Your task to perform on an android device: check google app version Image 0: 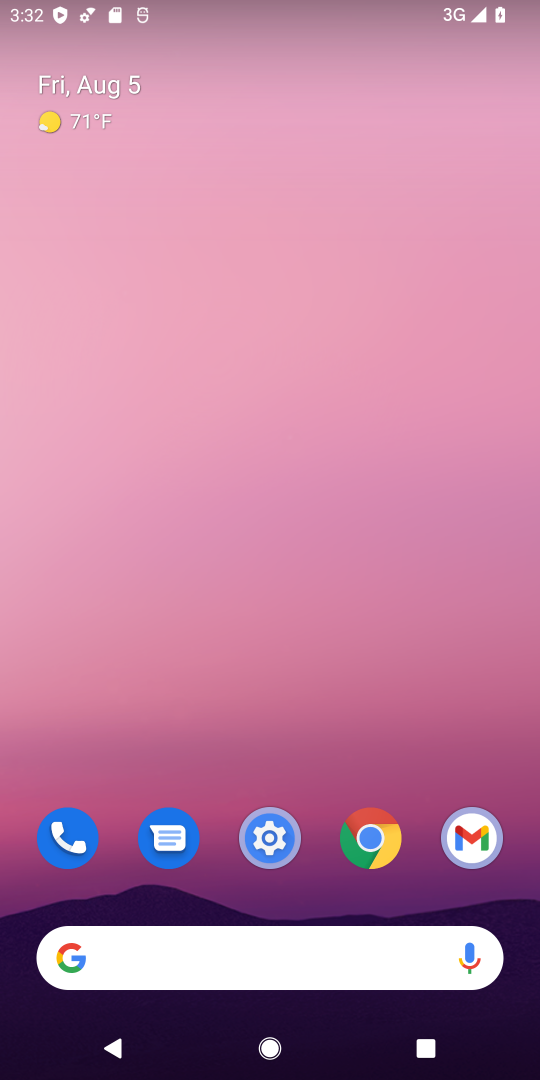
Step 0: drag from (213, 901) to (289, 459)
Your task to perform on an android device: check google app version Image 1: 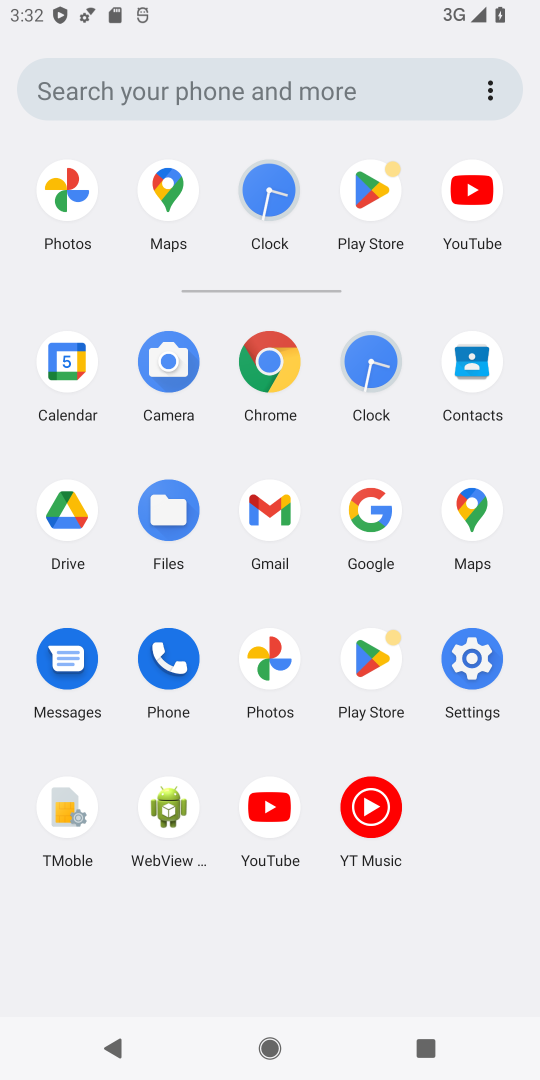
Step 1: click (388, 511)
Your task to perform on an android device: check google app version Image 2: 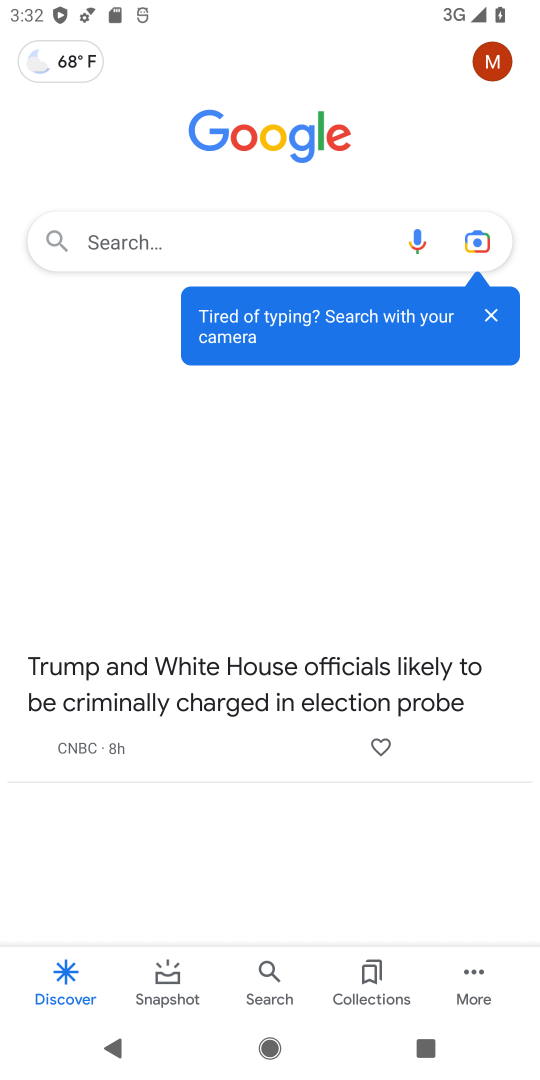
Step 2: click (486, 63)
Your task to perform on an android device: check google app version Image 3: 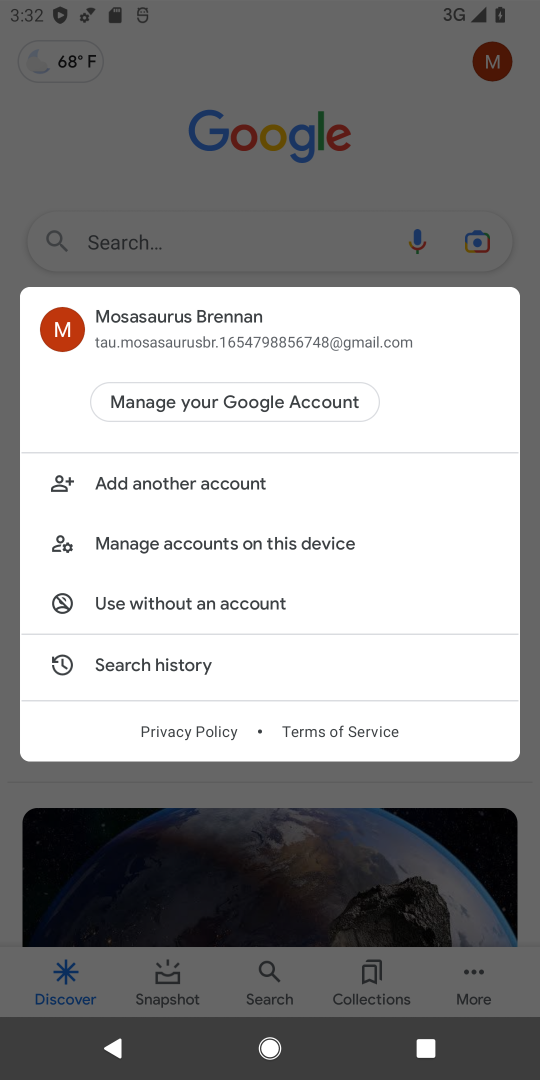
Step 3: click (510, 180)
Your task to perform on an android device: check google app version Image 4: 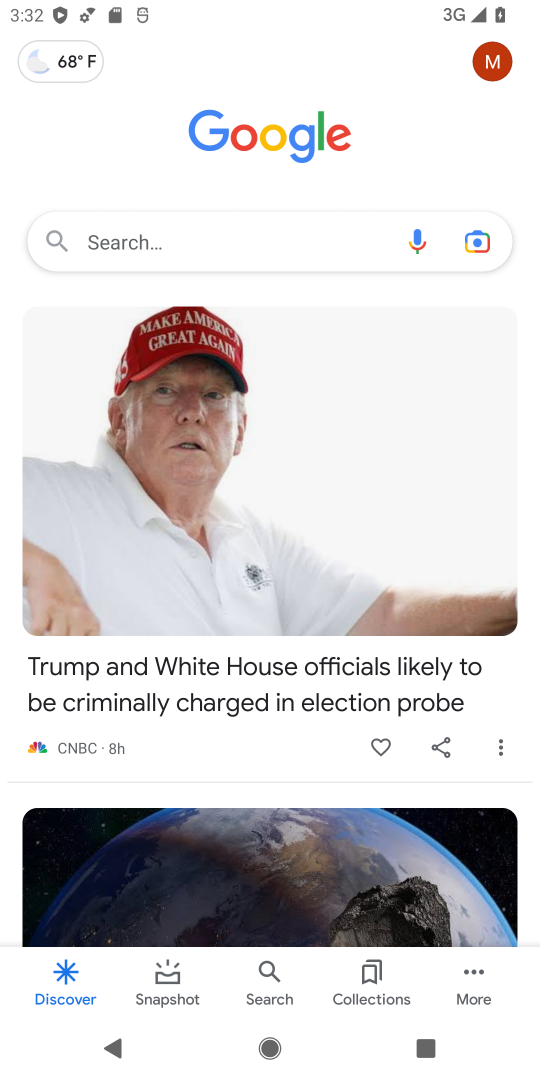
Step 4: click (468, 978)
Your task to perform on an android device: check google app version Image 5: 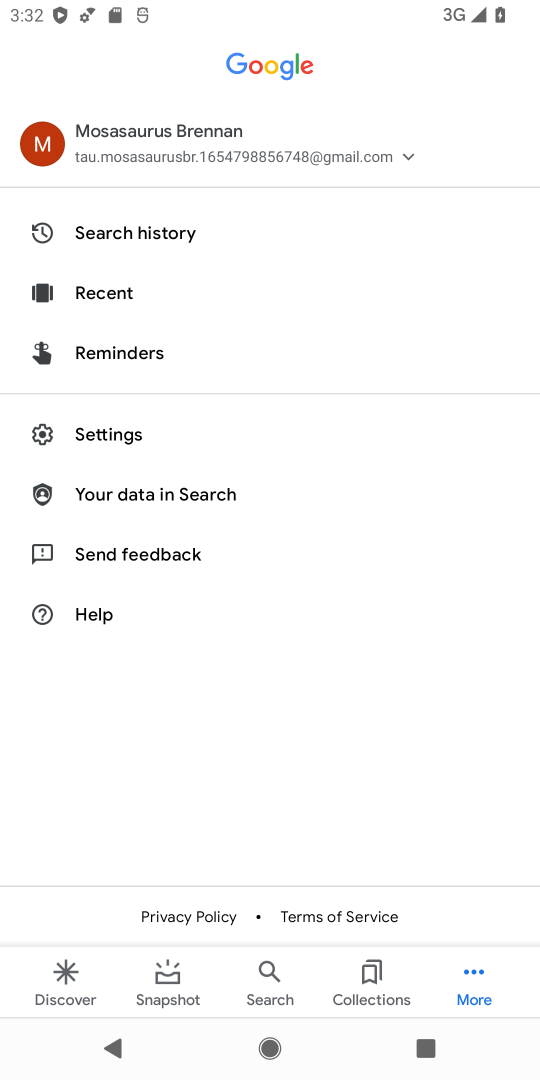
Step 5: click (104, 429)
Your task to perform on an android device: check google app version Image 6: 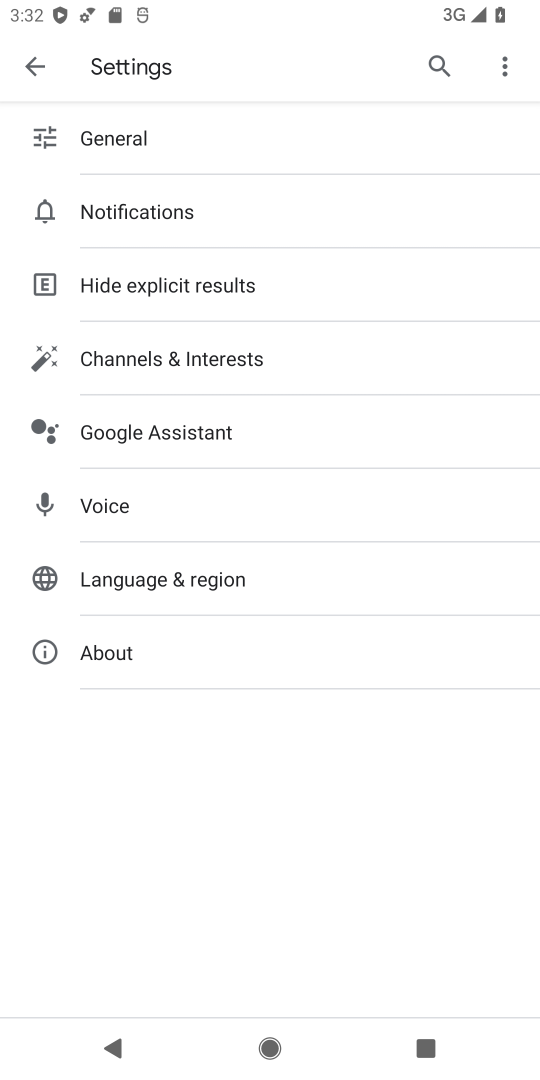
Step 6: click (135, 647)
Your task to perform on an android device: check google app version Image 7: 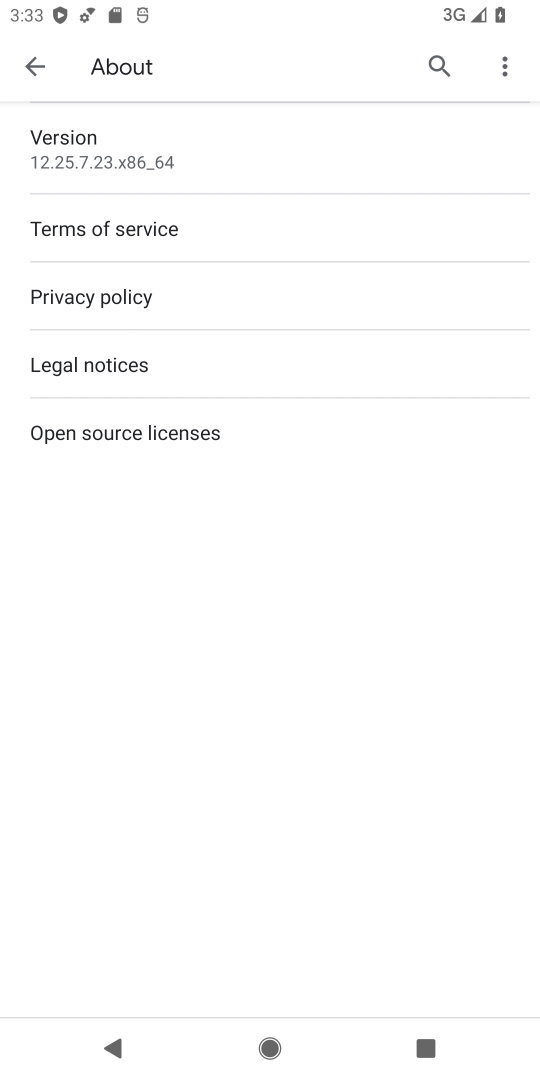
Step 7: task complete